Your task to perform on an android device: open app "Firefox Browser" (install if not already installed) and enter user name: "hashed@outlook.com" and password: "congestive" Image 0: 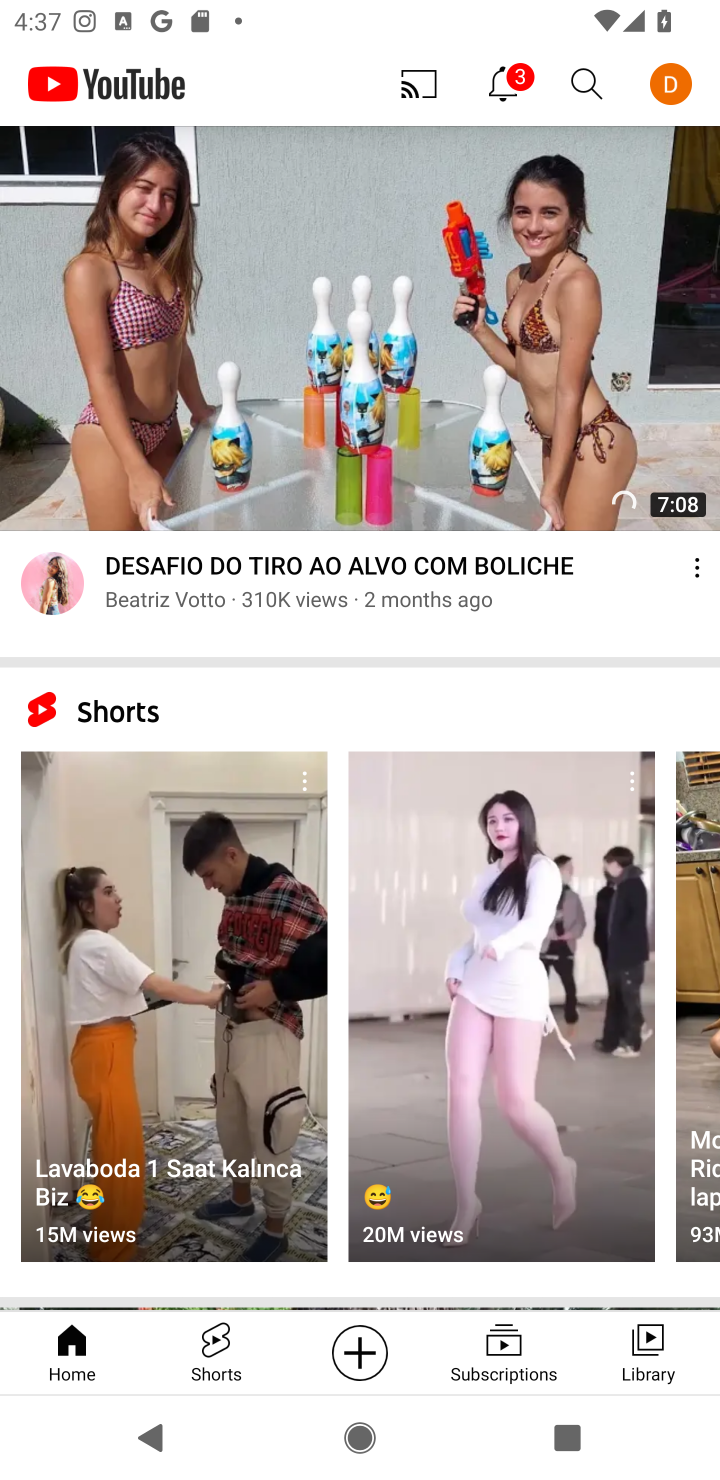
Step 0: press home button
Your task to perform on an android device: open app "Firefox Browser" (install if not already installed) and enter user name: "hashed@outlook.com" and password: "congestive" Image 1: 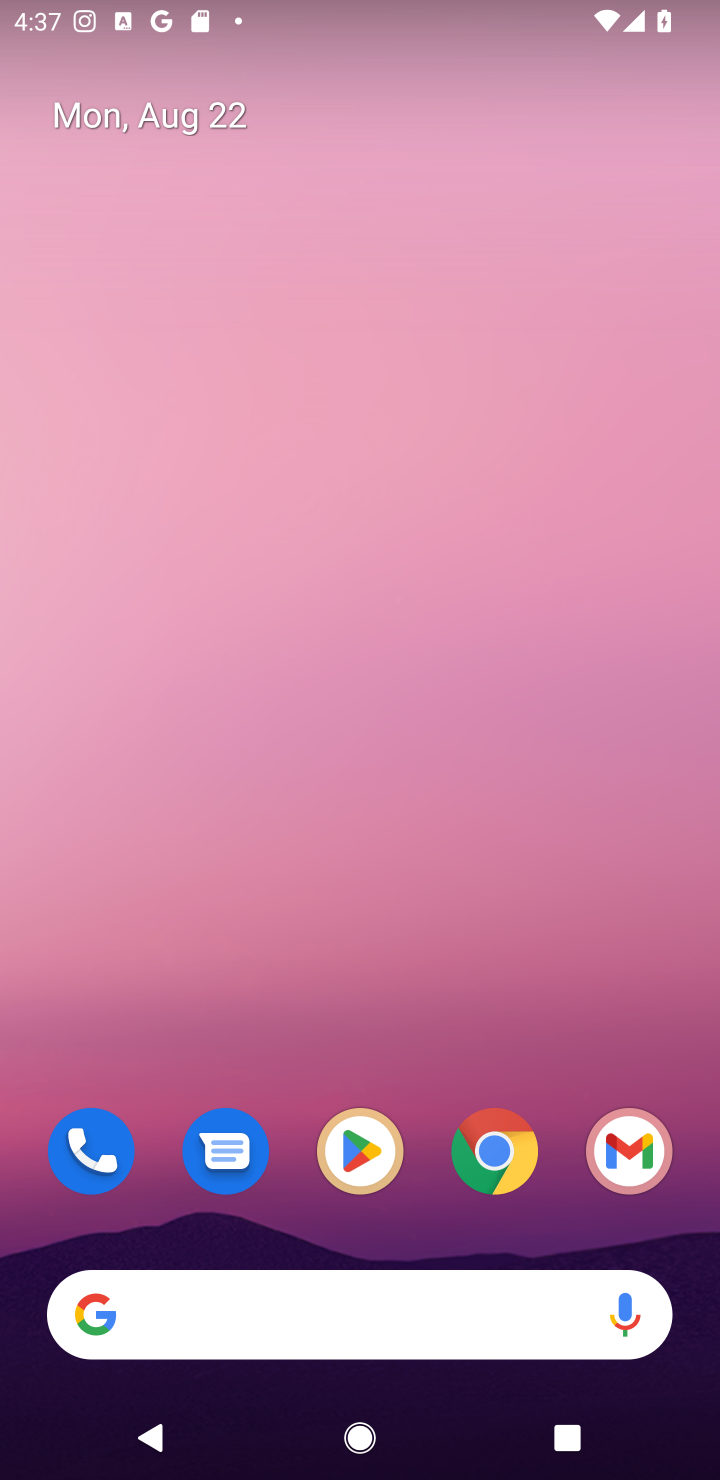
Step 1: click (359, 1153)
Your task to perform on an android device: open app "Firefox Browser" (install if not already installed) and enter user name: "hashed@outlook.com" and password: "congestive" Image 2: 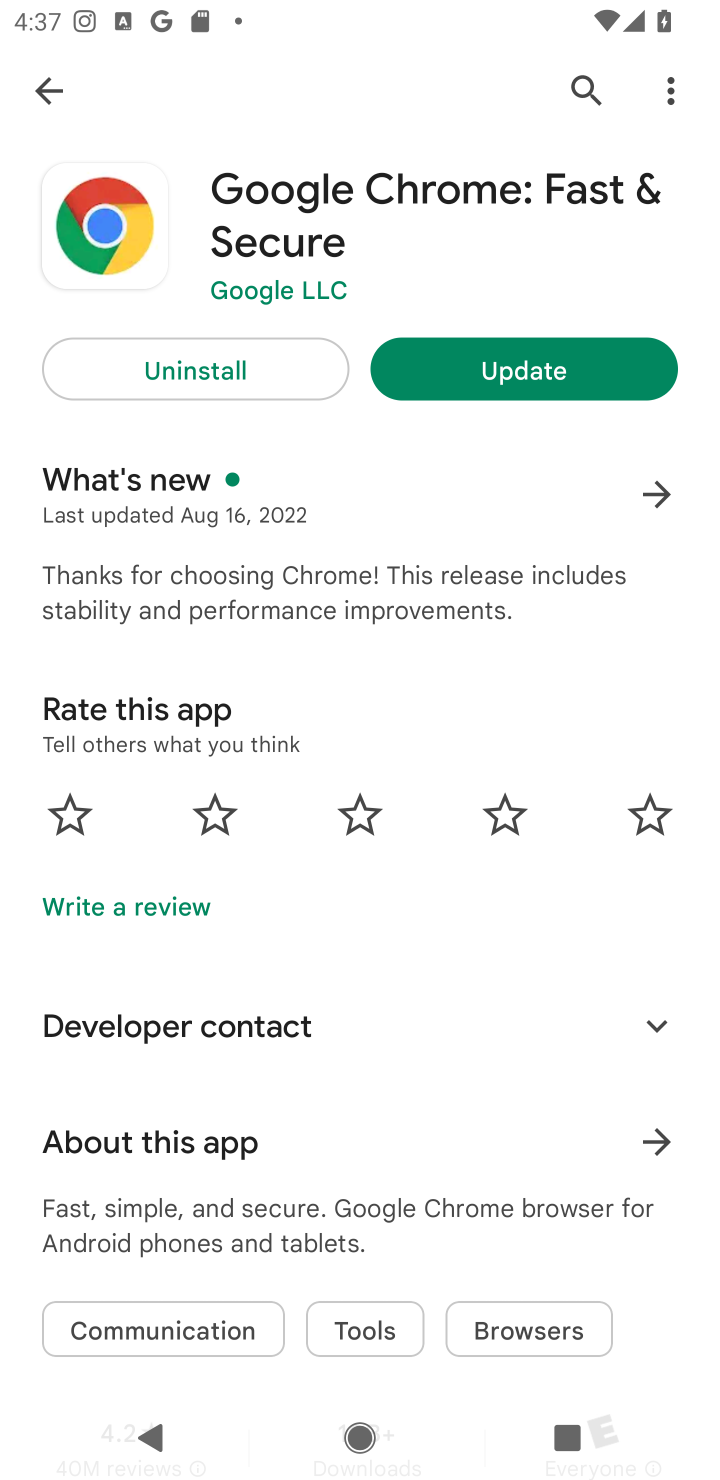
Step 2: click (584, 83)
Your task to perform on an android device: open app "Firefox Browser" (install if not already installed) and enter user name: "hashed@outlook.com" and password: "congestive" Image 3: 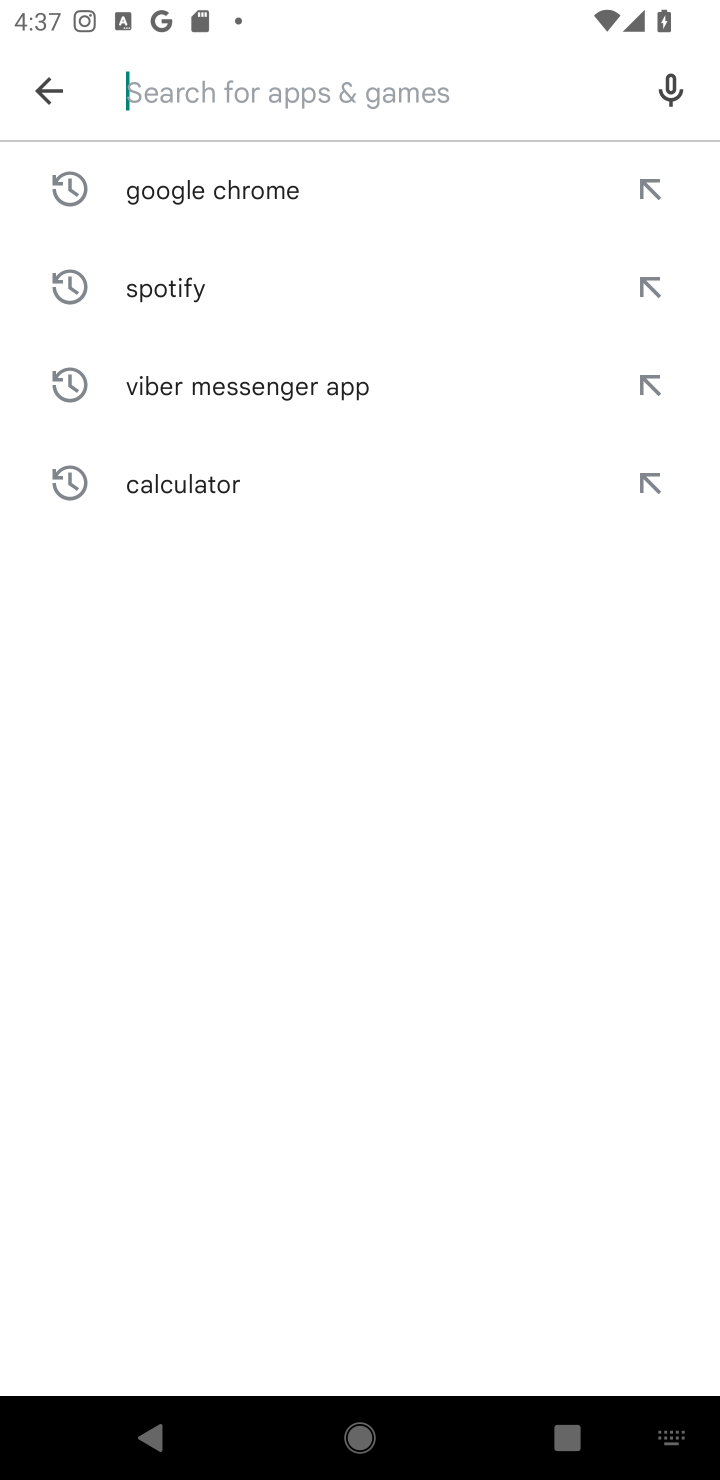
Step 3: type "Firefox Browser"
Your task to perform on an android device: open app "Firefox Browser" (install if not already installed) and enter user name: "hashed@outlook.com" and password: "congestive" Image 4: 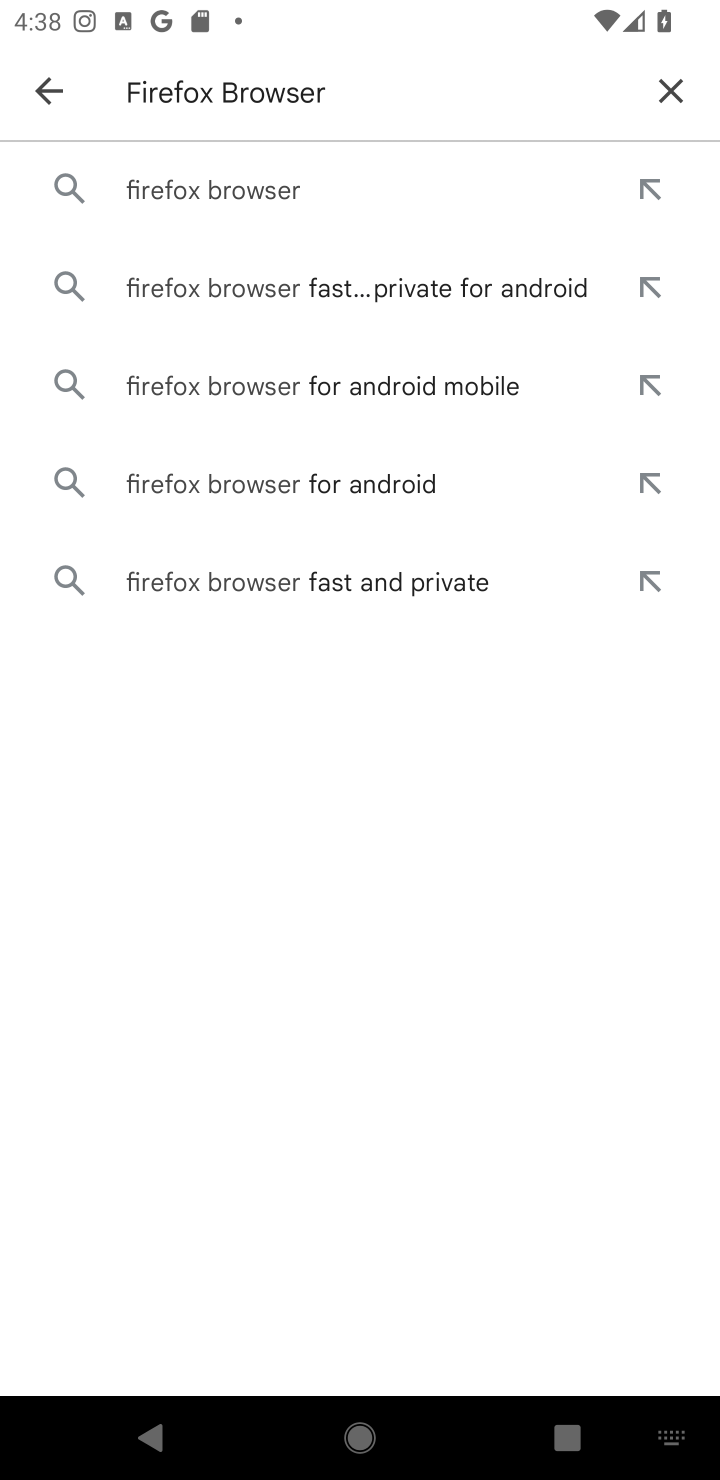
Step 4: click (270, 176)
Your task to perform on an android device: open app "Firefox Browser" (install if not already installed) and enter user name: "hashed@outlook.com" and password: "congestive" Image 5: 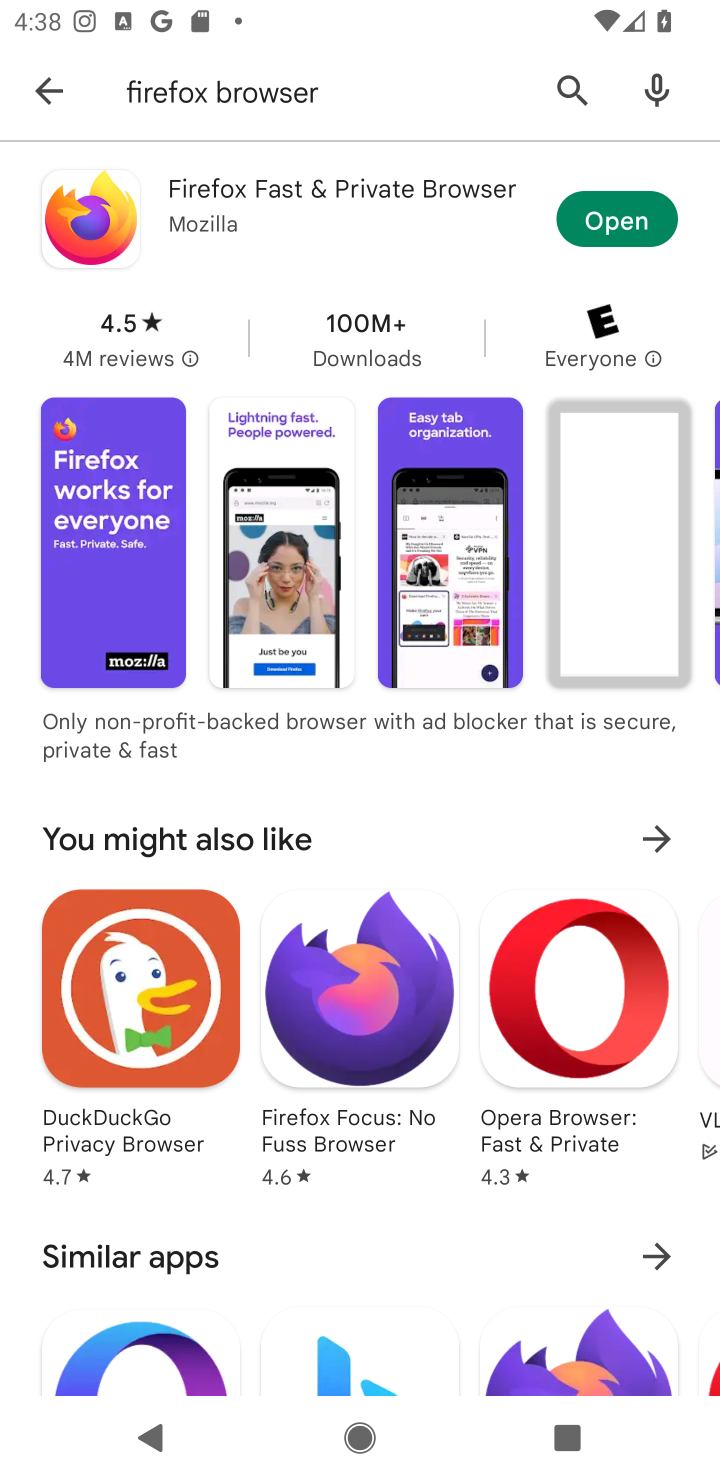
Step 5: click (598, 238)
Your task to perform on an android device: open app "Firefox Browser" (install if not already installed) and enter user name: "hashed@outlook.com" and password: "congestive" Image 6: 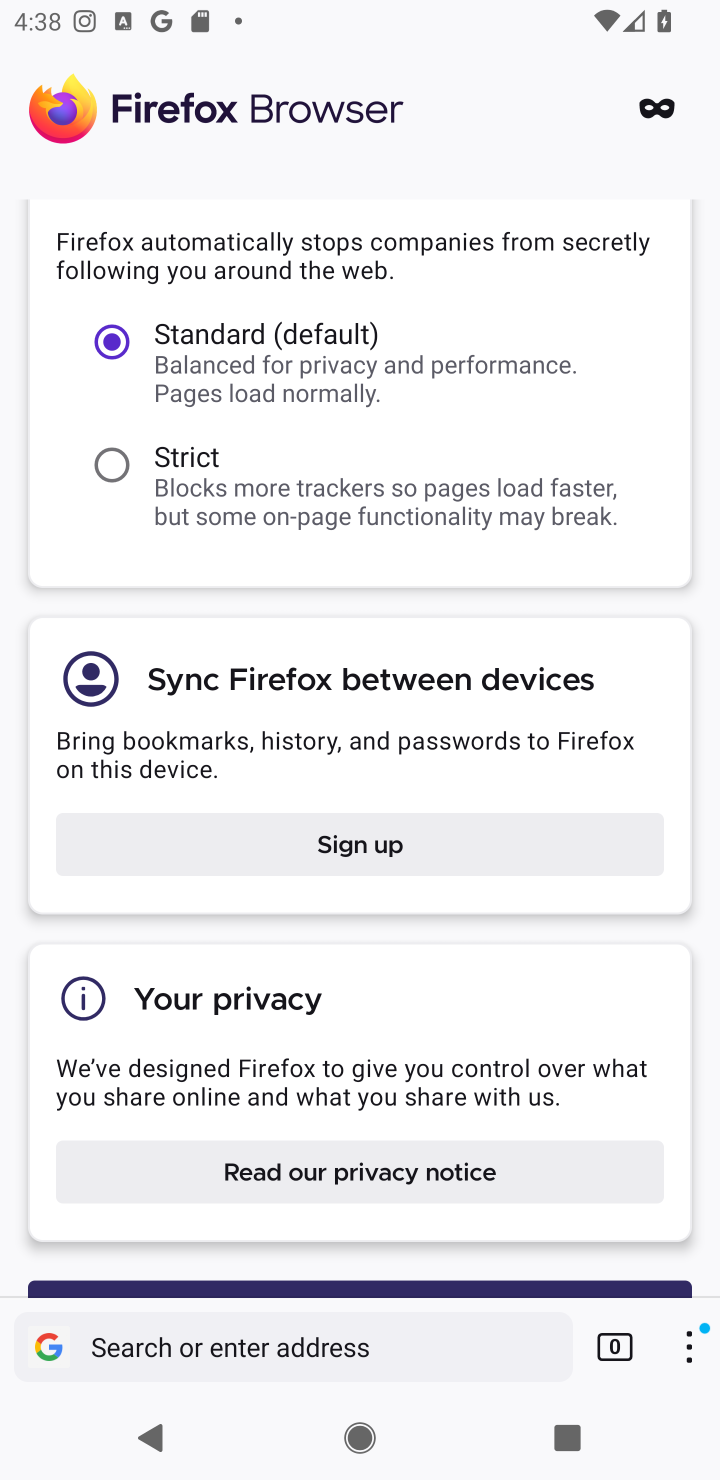
Step 6: task complete